Your task to perform on an android device: search for starred emails in the gmail app Image 0: 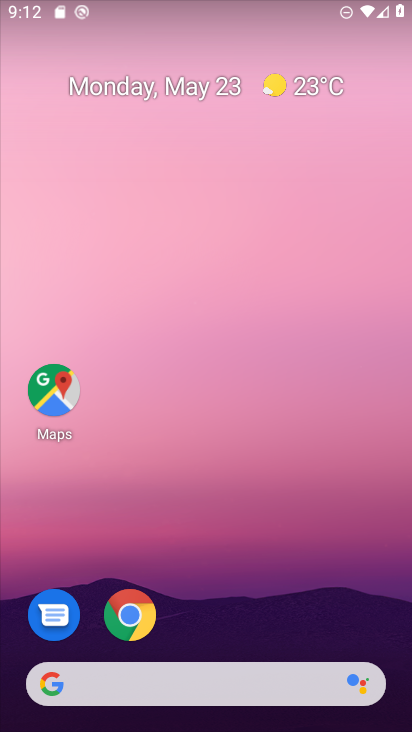
Step 0: drag from (241, 603) to (281, 79)
Your task to perform on an android device: search for starred emails in the gmail app Image 1: 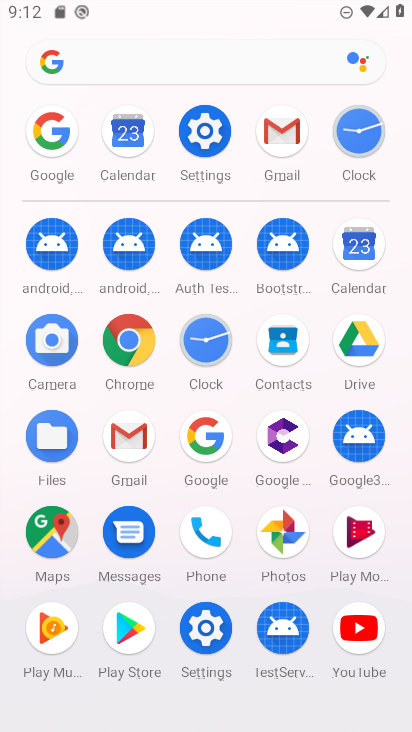
Step 1: click (282, 127)
Your task to perform on an android device: search for starred emails in the gmail app Image 2: 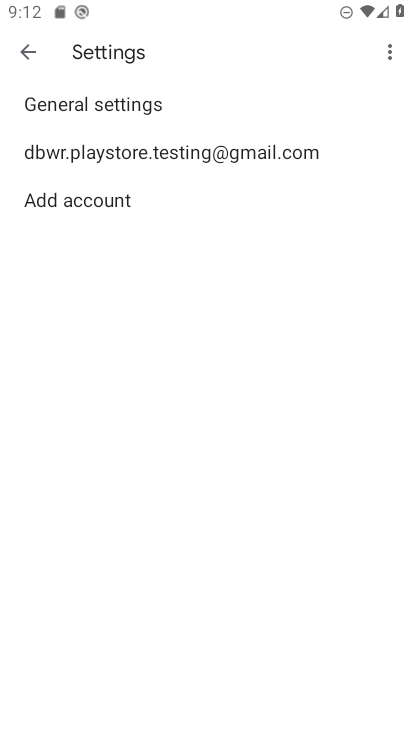
Step 2: click (37, 53)
Your task to perform on an android device: search for starred emails in the gmail app Image 3: 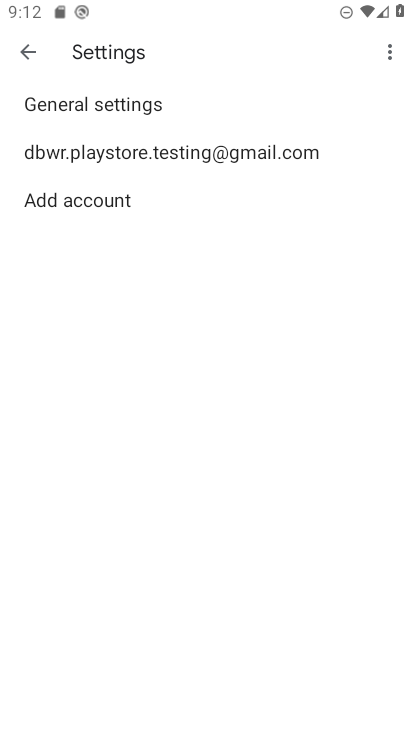
Step 3: click (37, 53)
Your task to perform on an android device: search for starred emails in the gmail app Image 4: 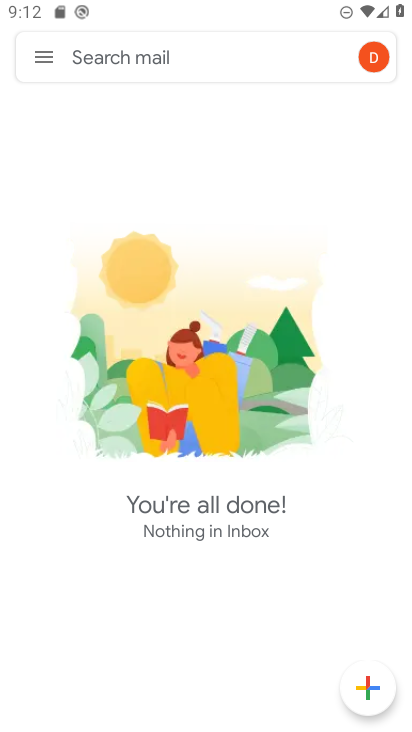
Step 4: click (37, 53)
Your task to perform on an android device: search for starred emails in the gmail app Image 5: 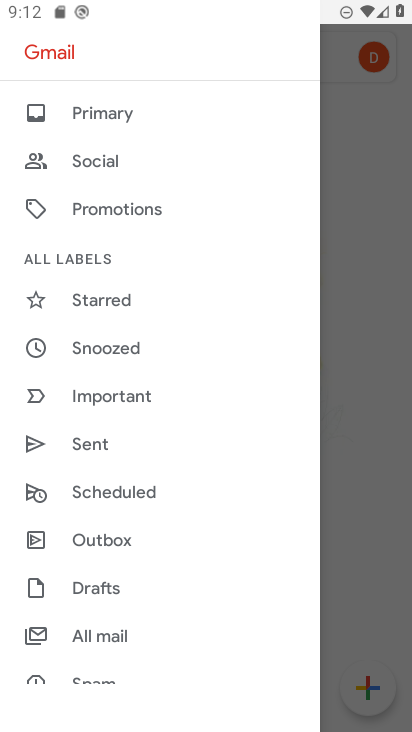
Step 5: click (90, 301)
Your task to perform on an android device: search for starred emails in the gmail app Image 6: 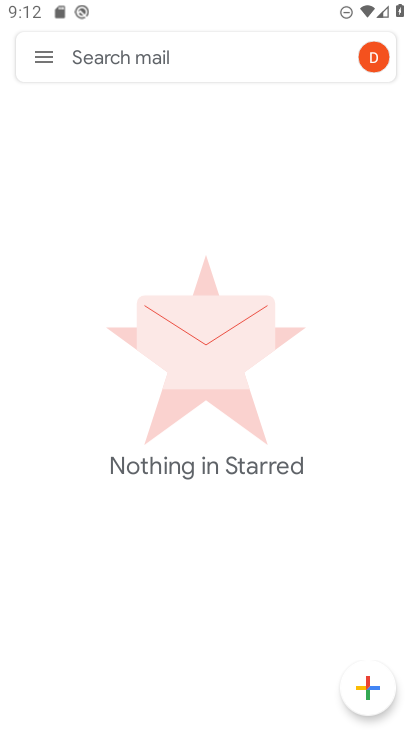
Step 6: click (44, 60)
Your task to perform on an android device: search for starred emails in the gmail app Image 7: 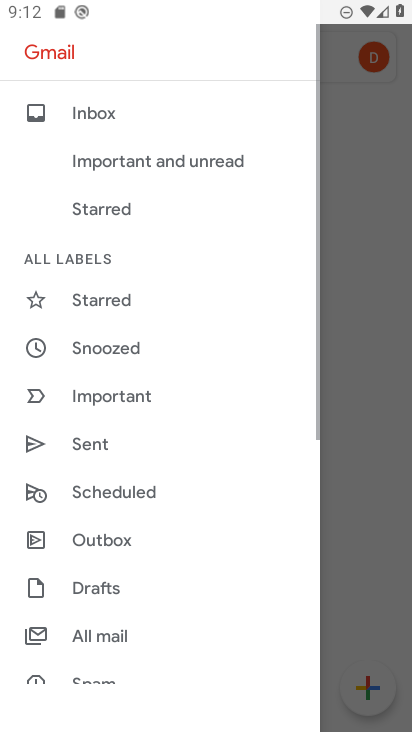
Step 7: drag from (145, 524) to (157, 404)
Your task to perform on an android device: search for starred emails in the gmail app Image 8: 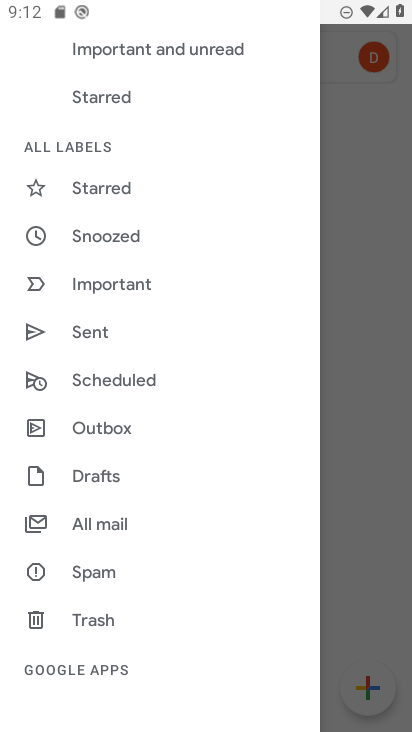
Step 8: click (107, 520)
Your task to perform on an android device: search for starred emails in the gmail app Image 9: 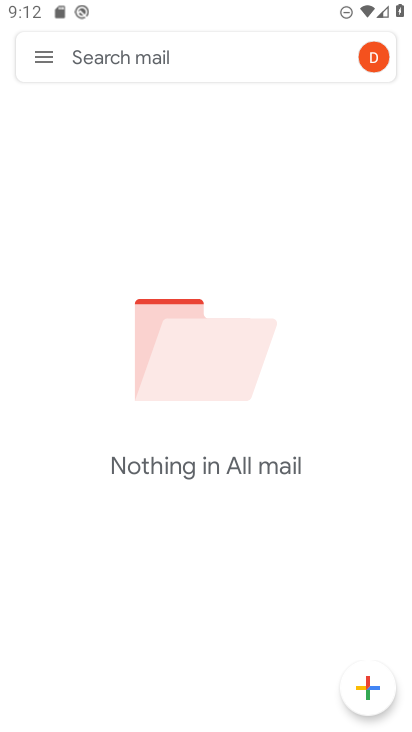
Step 9: task complete